Your task to perform on an android device: Search for shimano brake pads on Walmart Image 0: 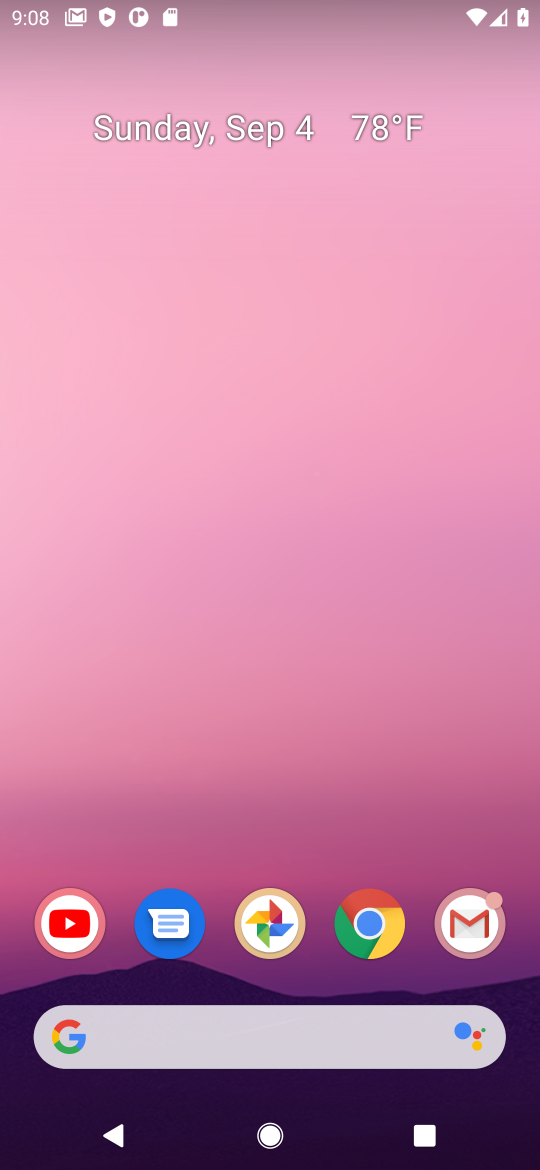
Step 0: click (153, 1029)
Your task to perform on an android device: Search for shimano brake pads on Walmart Image 1: 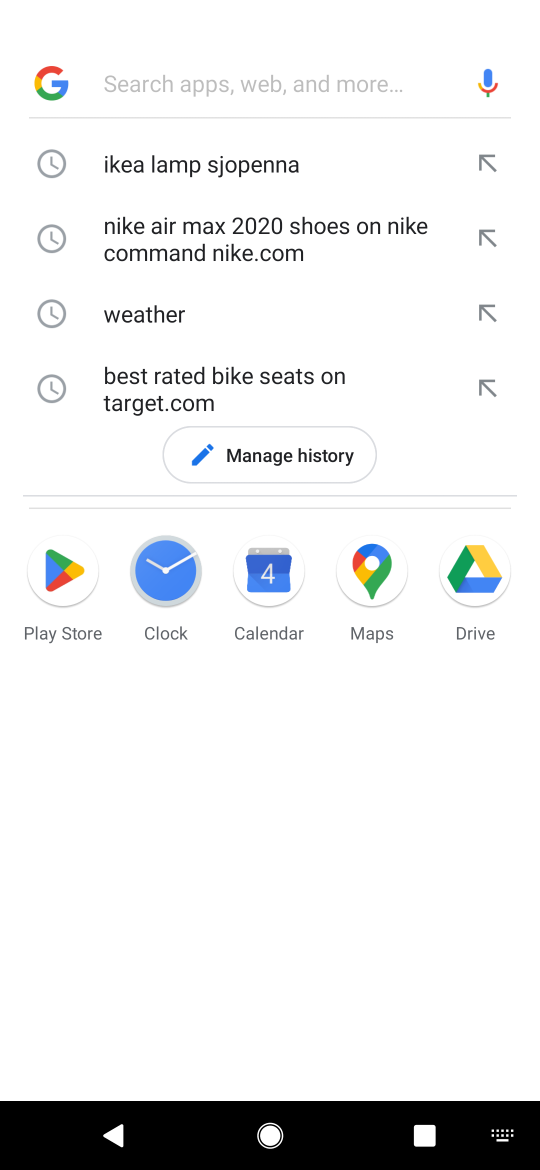
Step 1: type "shimano brake pads on Walmart"
Your task to perform on an android device: Search for shimano brake pads on Walmart Image 2: 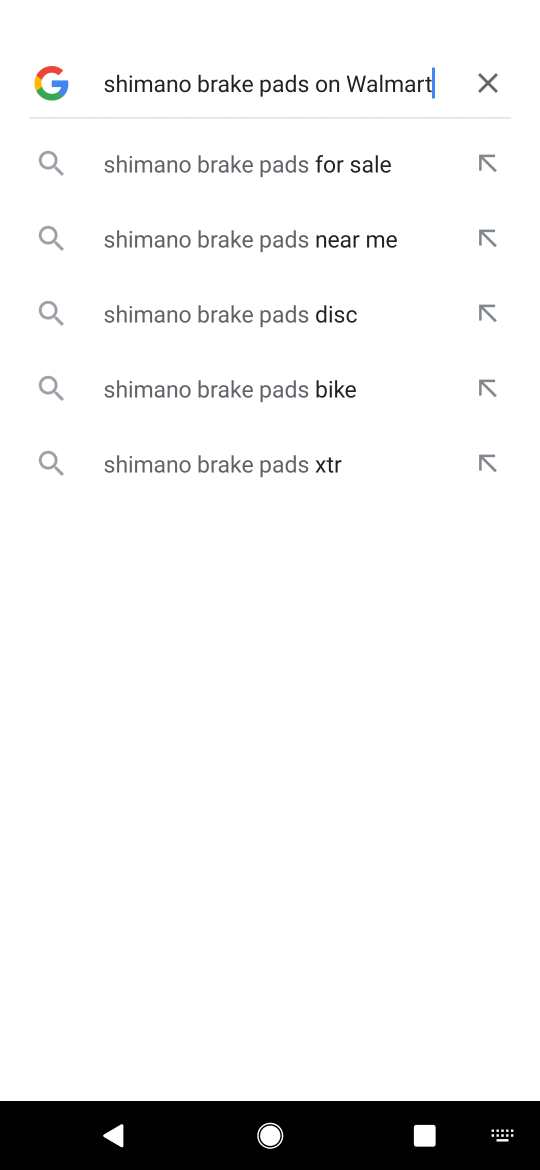
Step 2: type ""
Your task to perform on an android device: Search for shimano brake pads on Walmart Image 3: 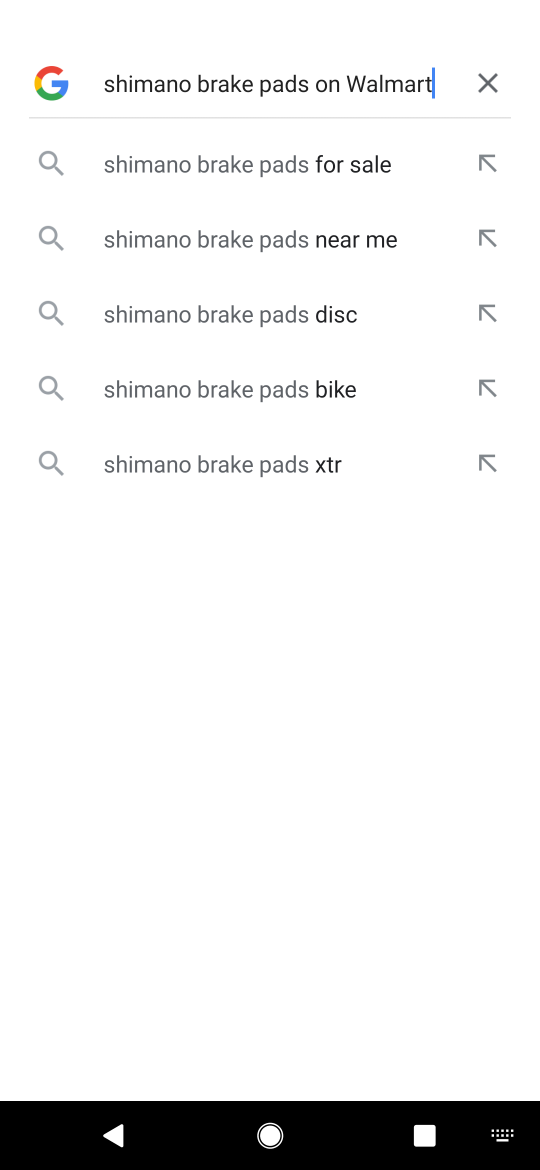
Step 3: click (439, 88)
Your task to perform on an android device: Search for shimano brake pads on Walmart Image 4: 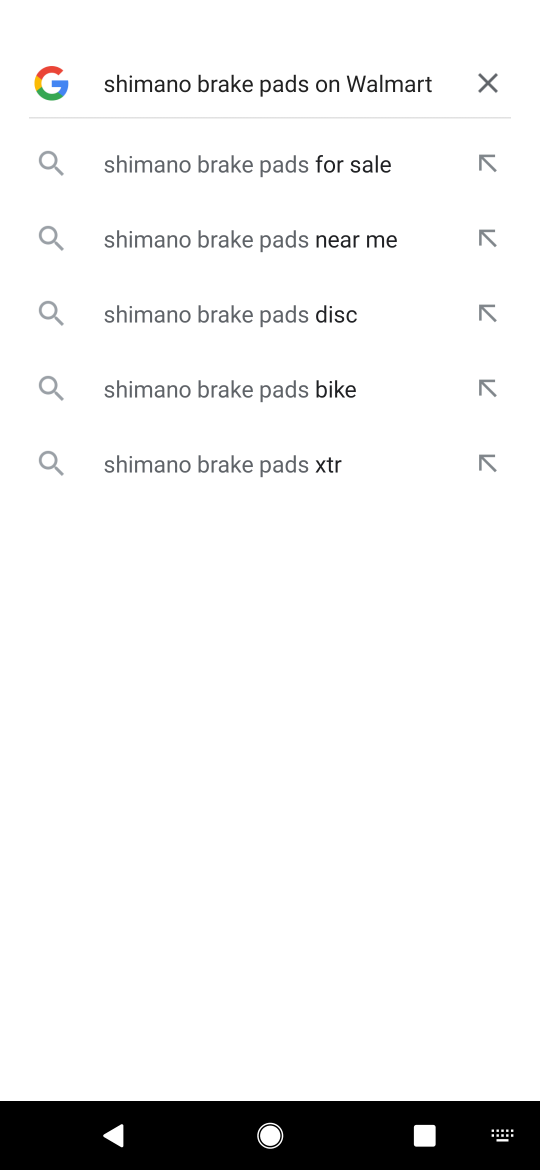
Step 4: task complete